Your task to perform on an android device: turn off airplane mode Image 0: 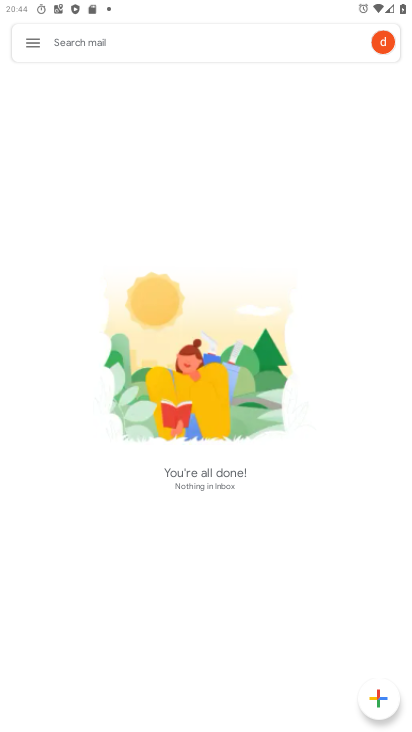
Step 0: drag from (266, 496) to (271, 197)
Your task to perform on an android device: turn off airplane mode Image 1: 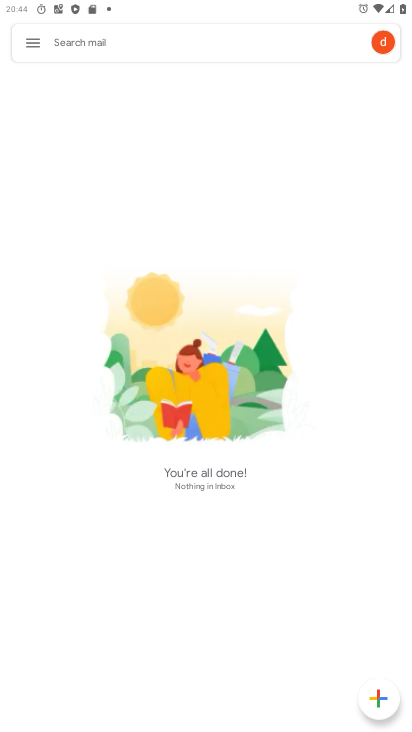
Step 1: click (289, 48)
Your task to perform on an android device: turn off airplane mode Image 2: 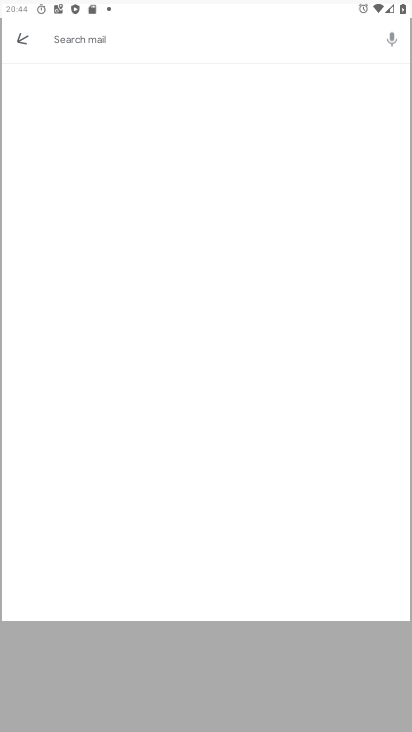
Step 2: press home button
Your task to perform on an android device: turn off airplane mode Image 3: 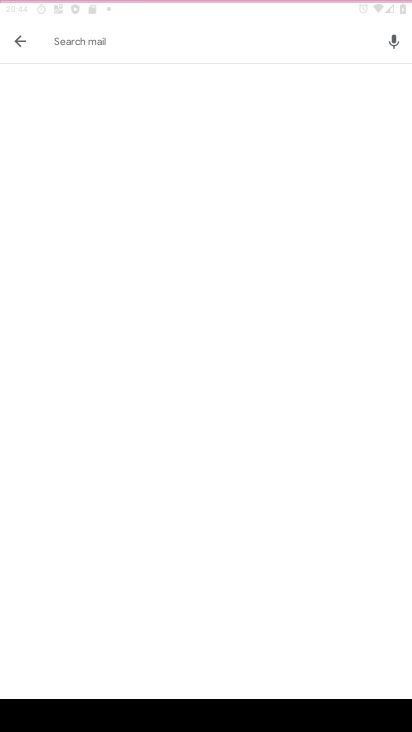
Step 3: drag from (123, 606) to (114, 100)
Your task to perform on an android device: turn off airplane mode Image 4: 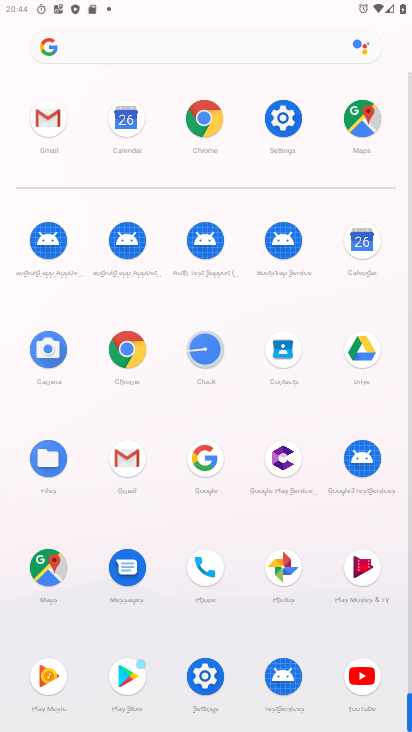
Step 4: click (287, 129)
Your task to perform on an android device: turn off airplane mode Image 5: 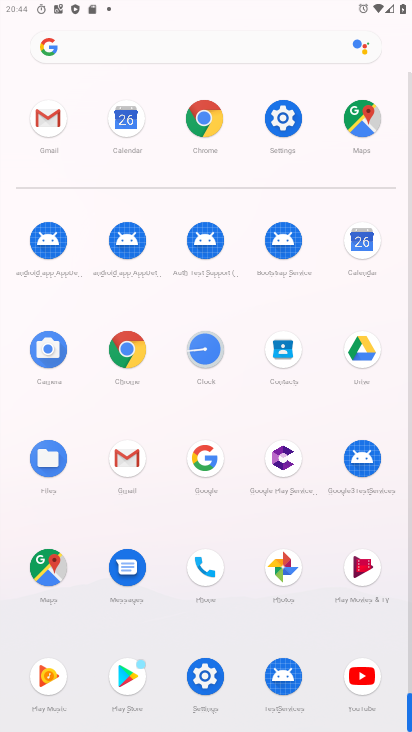
Step 5: click (287, 129)
Your task to perform on an android device: turn off airplane mode Image 6: 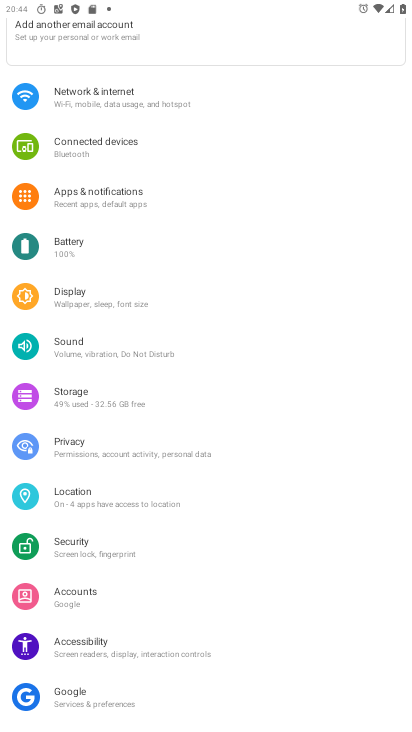
Step 6: click (103, 203)
Your task to perform on an android device: turn off airplane mode Image 7: 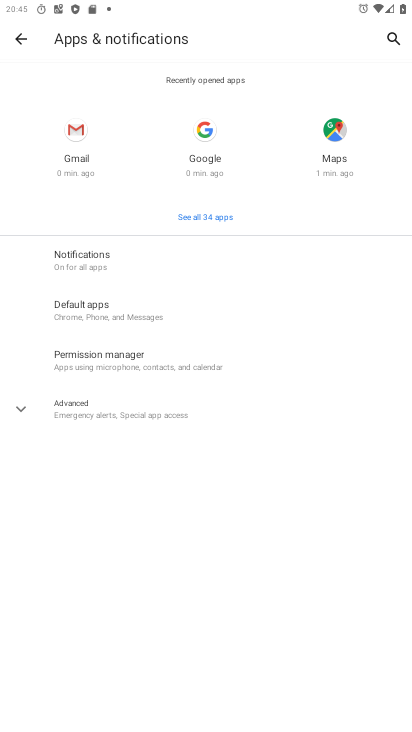
Step 7: click (20, 34)
Your task to perform on an android device: turn off airplane mode Image 8: 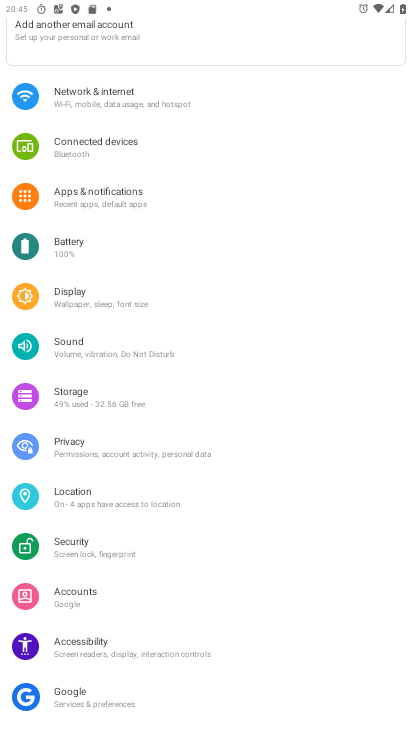
Step 8: click (136, 96)
Your task to perform on an android device: turn off airplane mode Image 9: 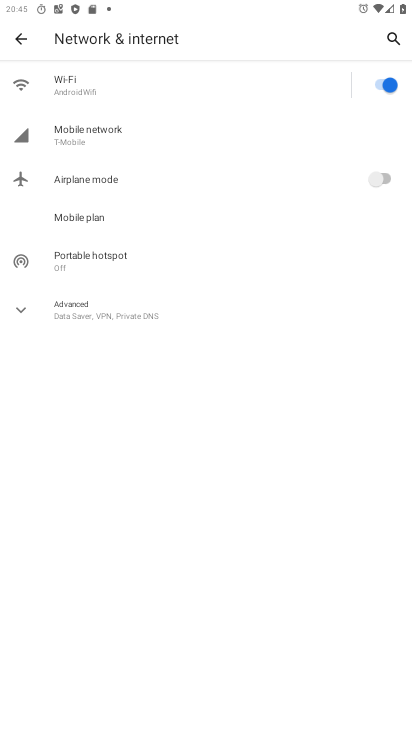
Step 9: task complete